Your task to perform on an android device: Go to accessibility settings Image 0: 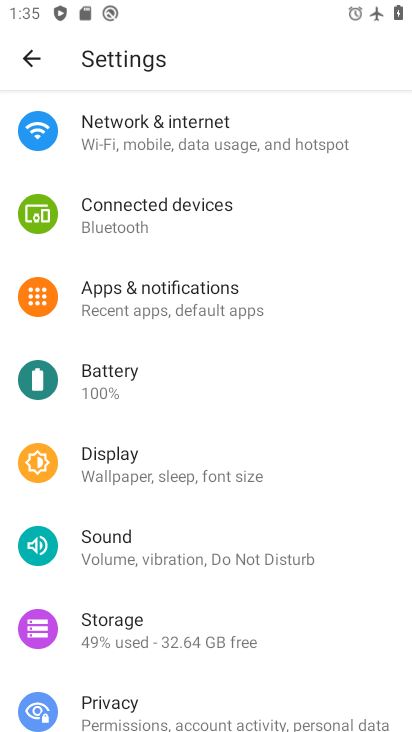
Step 0: drag from (197, 539) to (182, 115)
Your task to perform on an android device: Go to accessibility settings Image 1: 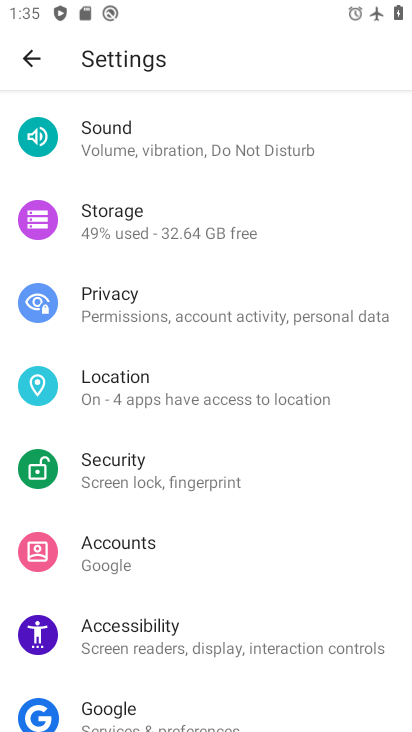
Step 1: drag from (141, 286) to (113, 559)
Your task to perform on an android device: Go to accessibility settings Image 2: 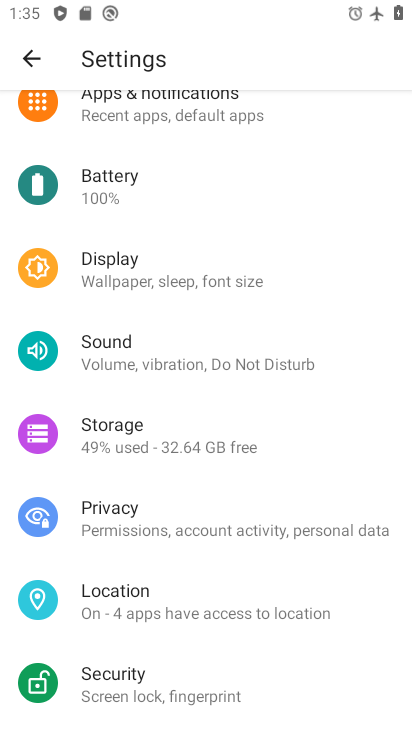
Step 2: drag from (155, 172) to (112, 531)
Your task to perform on an android device: Go to accessibility settings Image 3: 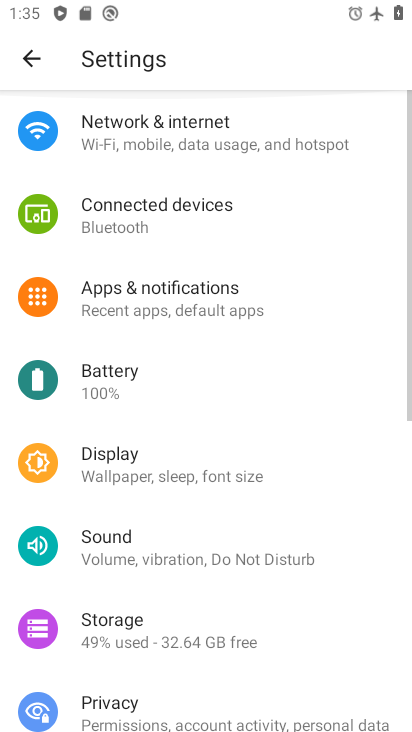
Step 3: drag from (146, 579) to (139, 123)
Your task to perform on an android device: Go to accessibility settings Image 4: 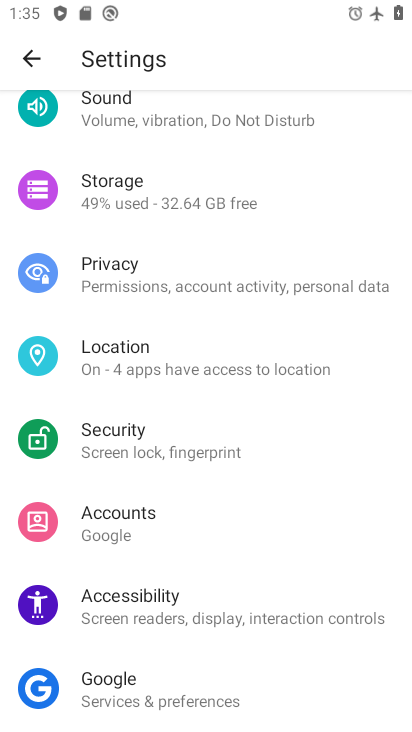
Step 4: drag from (173, 685) to (131, 333)
Your task to perform on an android device: Go to accessibility settings Image 5: 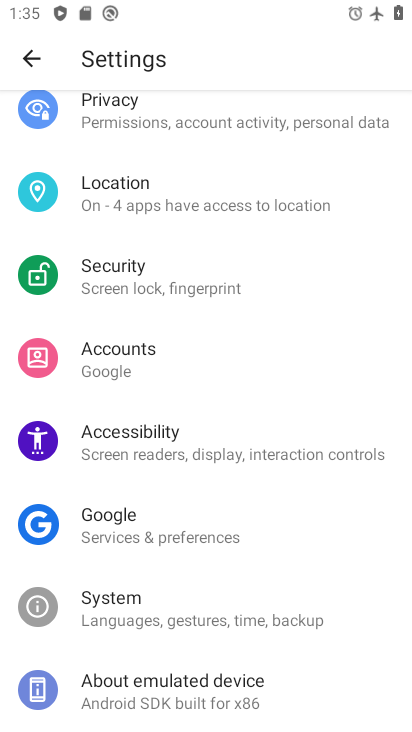
Step 5: click (133, 433)
Your task to perform on an android device: Go to accessibility settings Image 6: 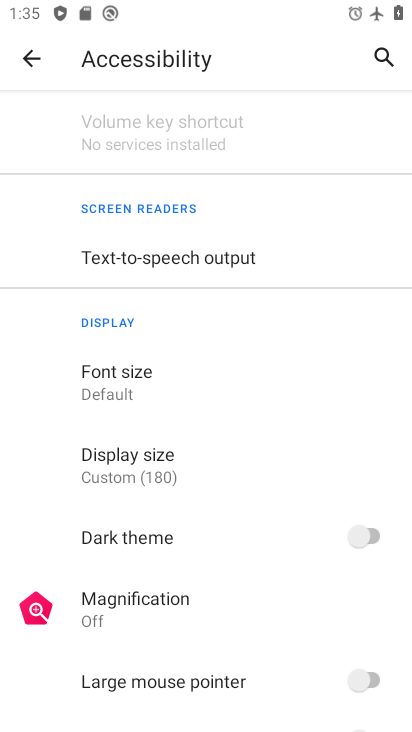
Step 6: task complete